Your task to perform on an android device: Search for Italian restaurants on Maps Image 0: 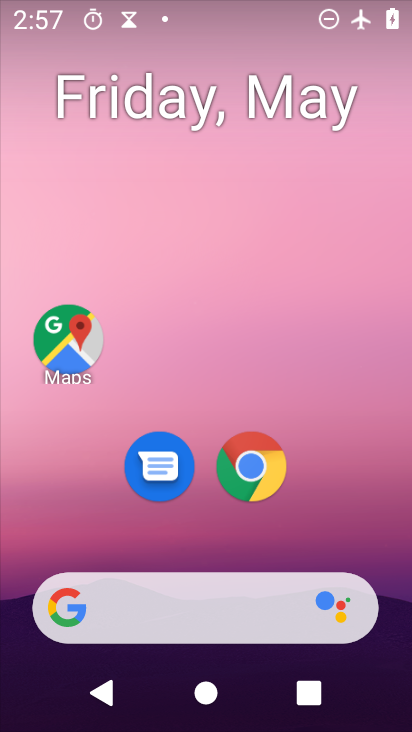
Step 0: drag from (363, 532) to (405, 73)
Your task to perform on an android device: Search for Italian restaurants on Maps Image 1: 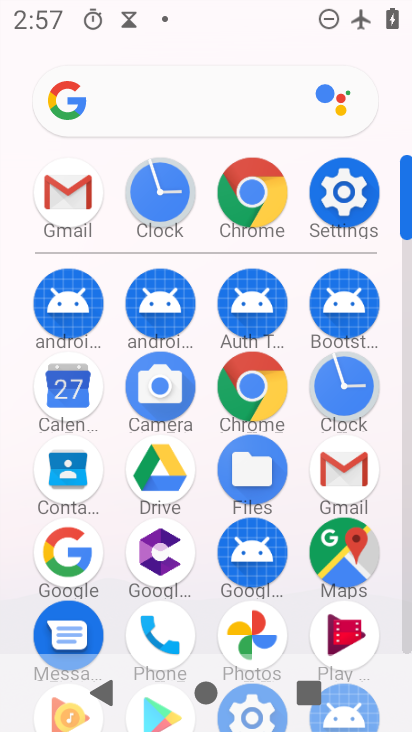
Step 1: click (363, 537)
Your task to perform on an android device: Search for Italian restaurants on Maps Image 2: 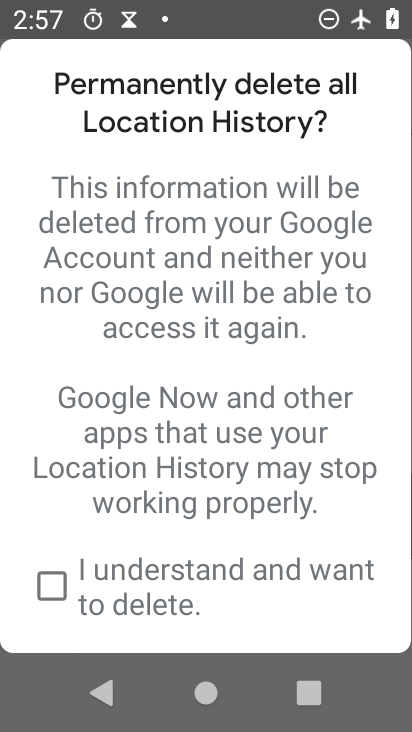
Step 2: drag from (193, 541) to (263, 276)
Your task to perform on an android device: Search for Italian restaurants on Maps Image 3: 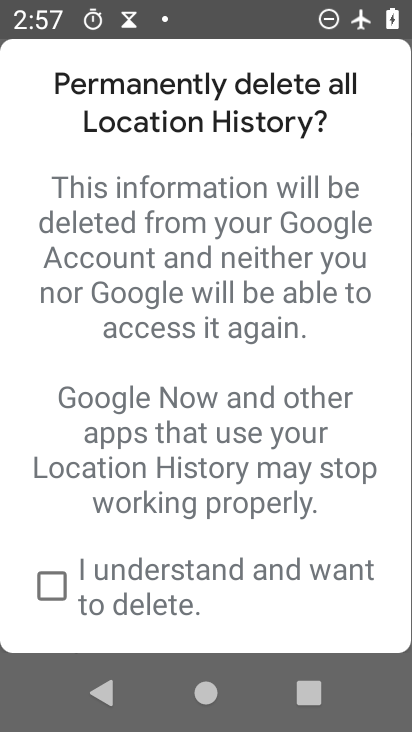
Step 3: press back button
Your task to perform on an android device: Search for Italian restaurants on Maps Image 4: 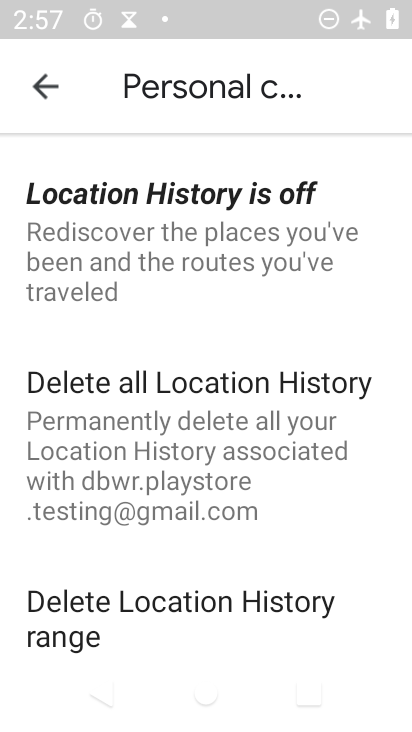
Step 4: press back button
Your task to perform on an android device: Search for Italian restaurants on Maps Image 5: 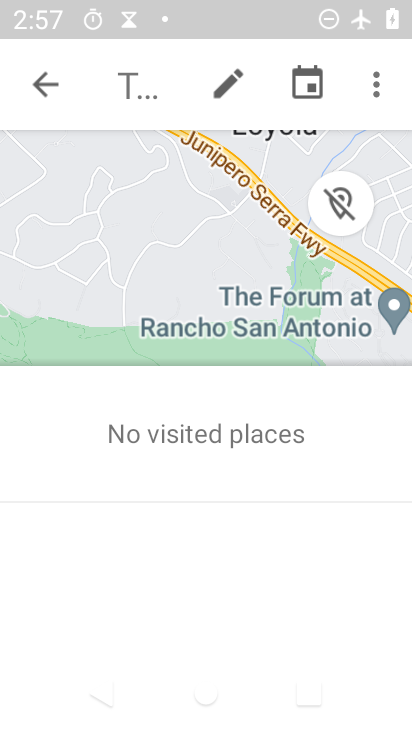
Step 5: click (42, 92)
Your task to perform on an android device: Search for Italian restaurants on Maps Image 6: 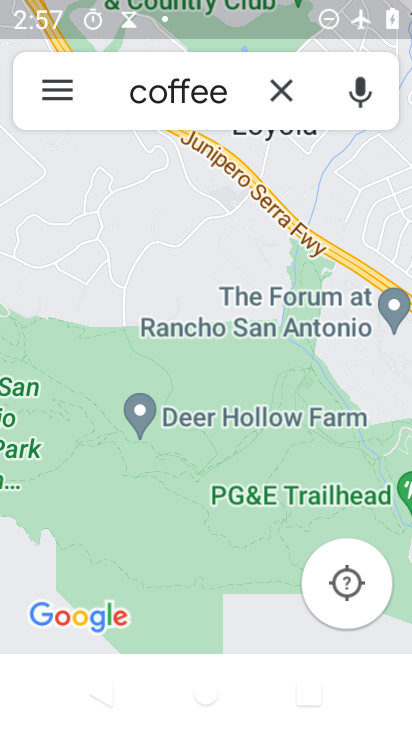
Step 6: click (280, 90)
Your task to perform on an android device: Search for Italian restaurants on Maps Image 7: 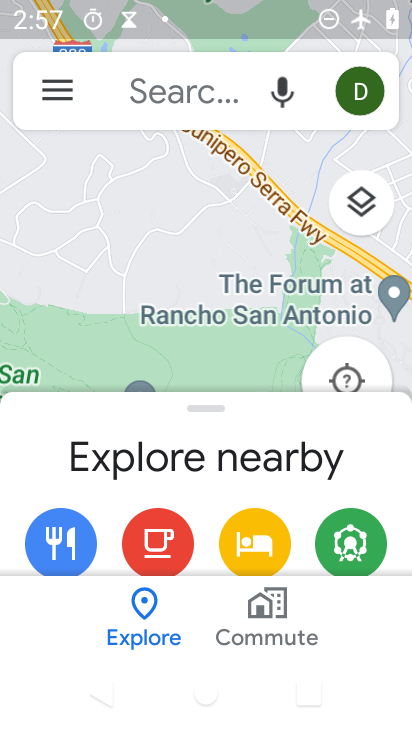
Step 7: click (188, 111)
Your task to perform on an android device: Search for Italian restaurants on Maps Image 8: 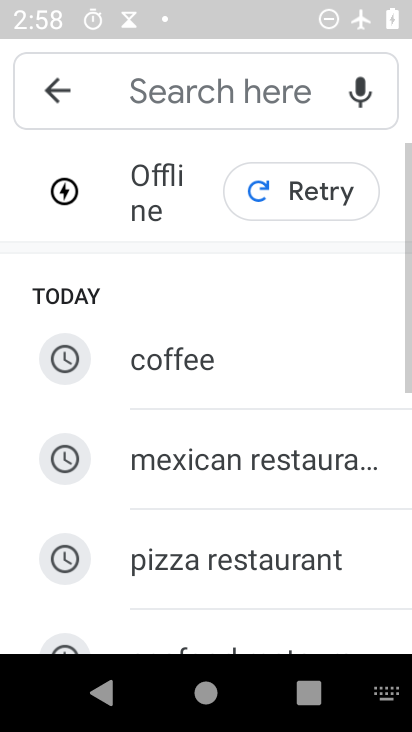
Step 8: drag from (250, 579) to (336, 211)
Your task to perform on an android device: Search for Italian restaurants on Maps Image 9: 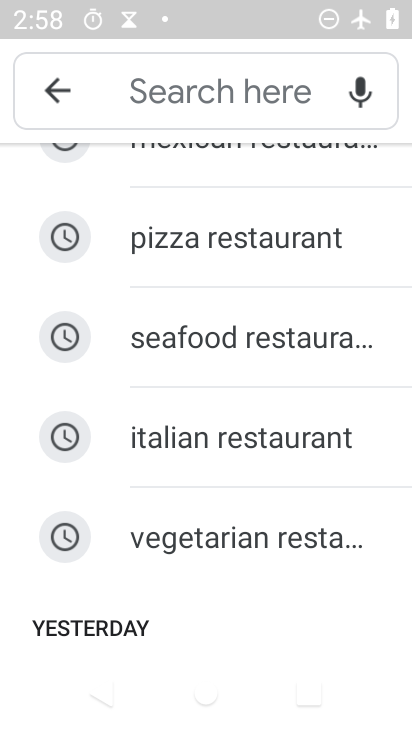
Step 9: click (186, 439)
Your task to perform on an android device: Search for Italian restaurants on Maps Image 10: 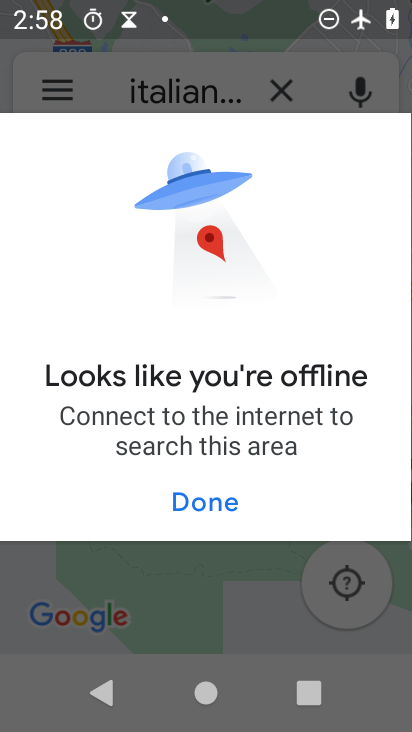
Step 10: task complete